Your task to perform on an android device: refresh tabs in the chrome app Image 0: 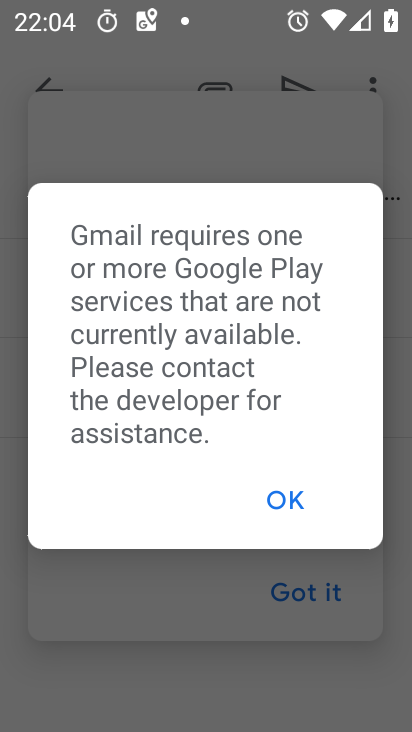
Step 0: press home button
Your task to perform on an android device: refresh tabs in the chrome app Image 1: 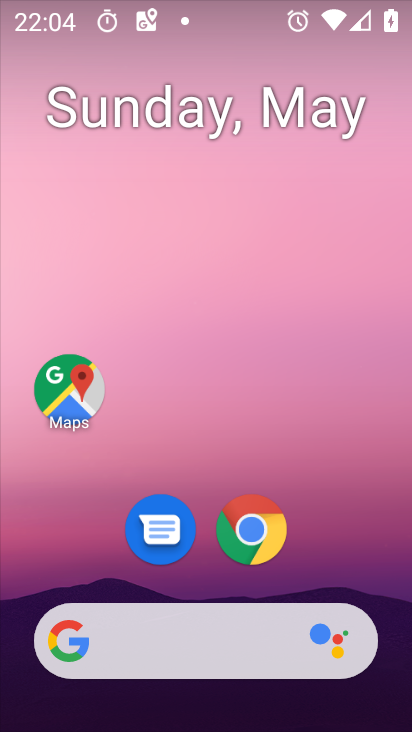
Step 1: click (258, 535)
Your task to perform on an android device: refresh tabs in the chrome app Image 2: 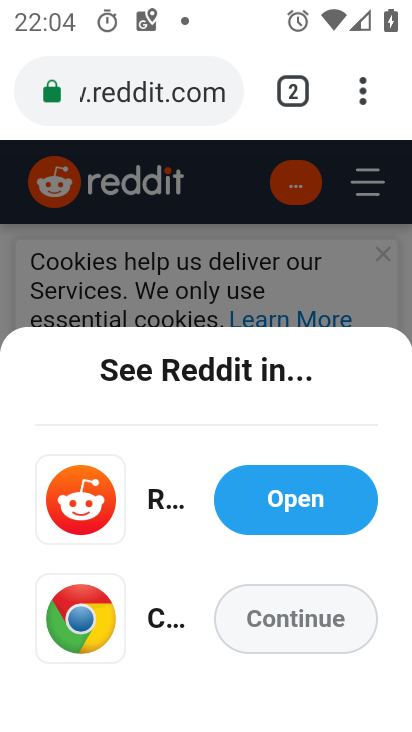
Step 2: click (365, 91)
Your task to perform on an android device: refresh tabs in the chrome app Image 3: 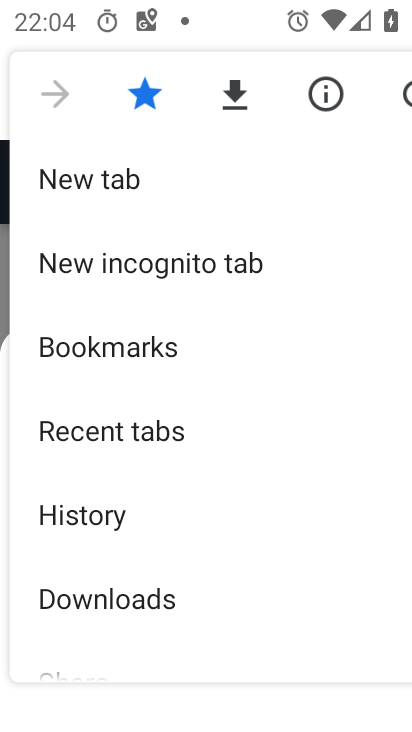
Step 3: click (409, 91)
Your task to perform on an android device: refresh tabs in the chrome app Image 4: 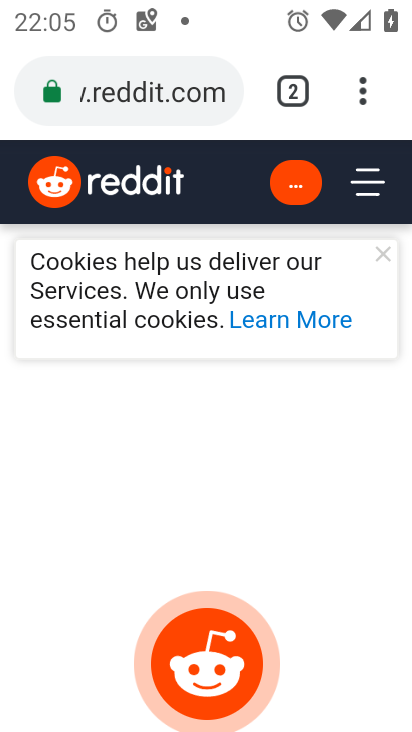
Step 4: task complete